Your task to perform on an android device: View the shopping cart on costco.com. Search for apple airpods pro on costco.com, select the first entry, and add it to the cart. Image 0: 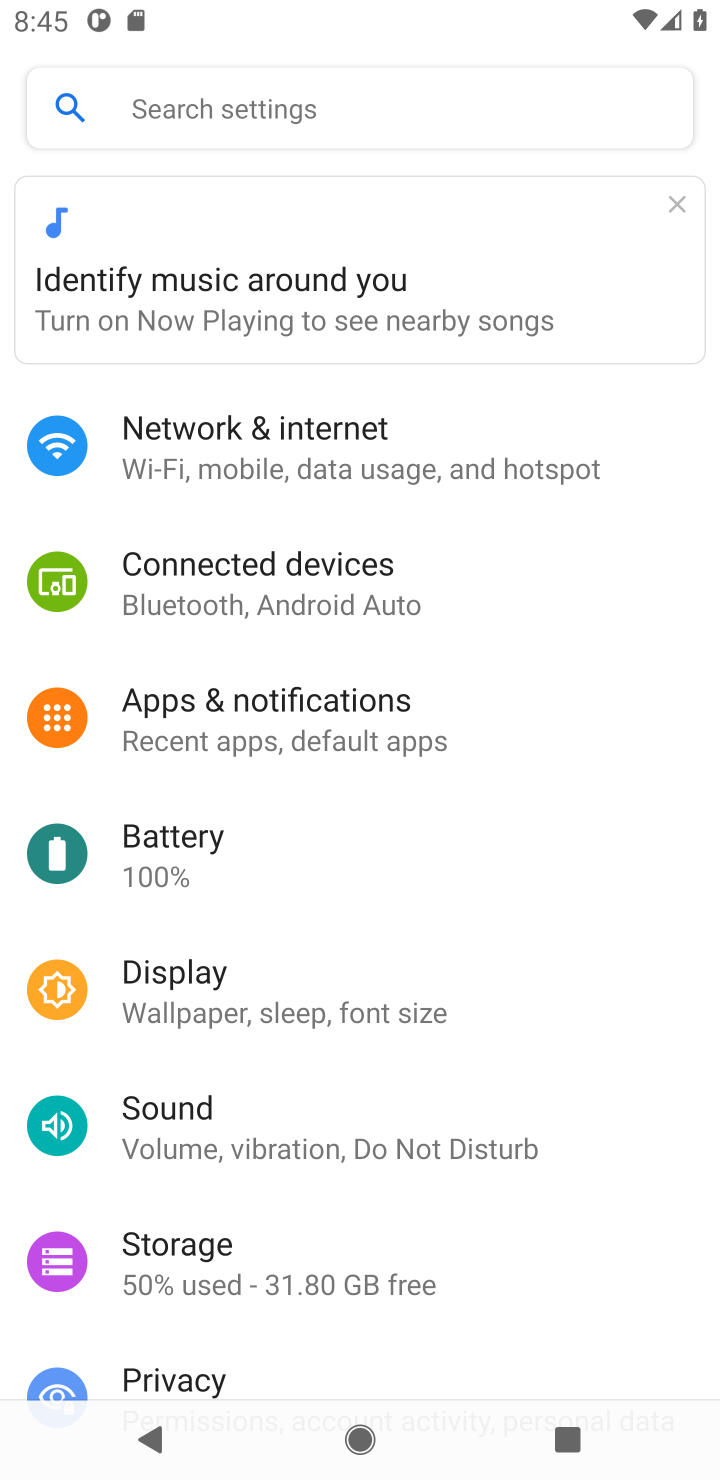
Step 0: press home button
Your task to perform on an android device: View the shopping cart on costco.com. Search for apple airpods pro on costco.com, select the first entry, and add it to the cart. Image 1: 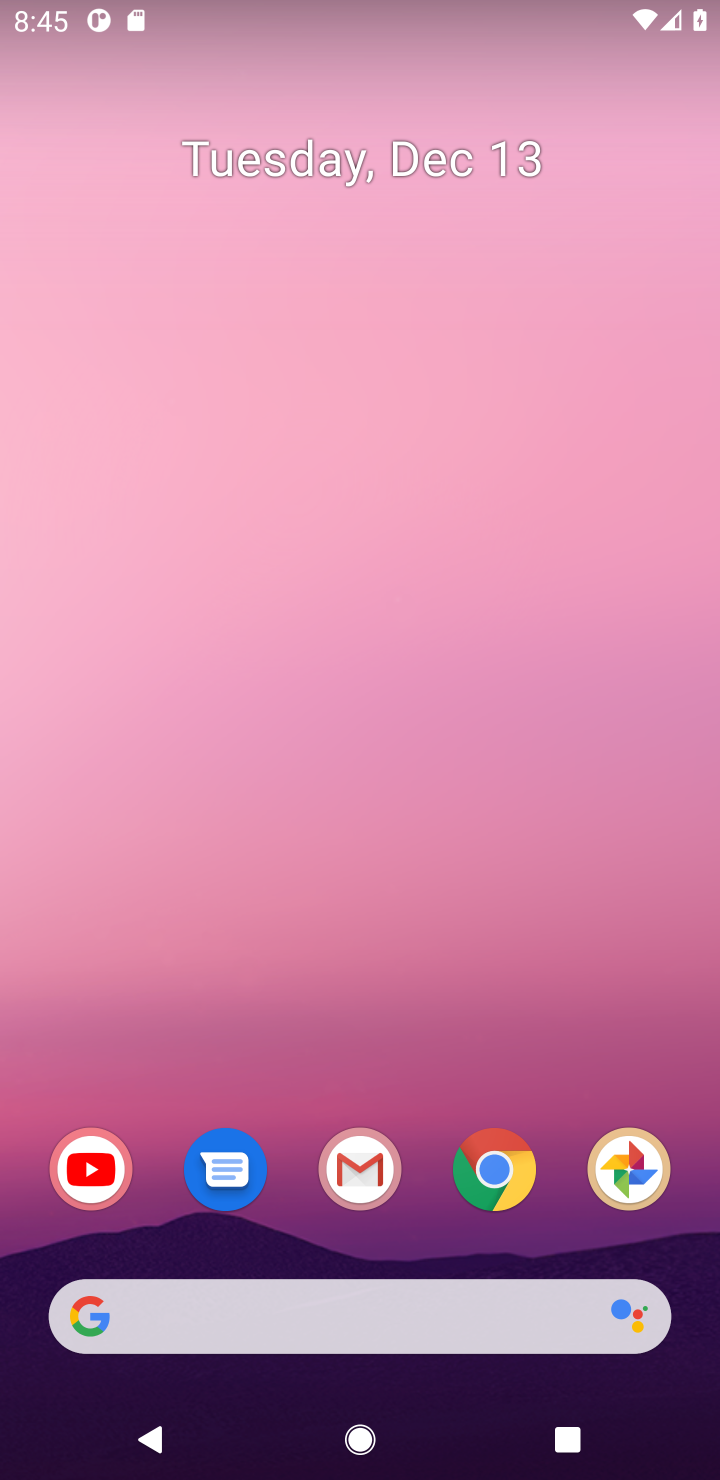
Step 1: click (490, 1138)
Your task to perform on an android device: View the shopping cart on costco.com. Search for apple airpods pro on costco.com, select the first entry, and add it to the cart. Image 2: 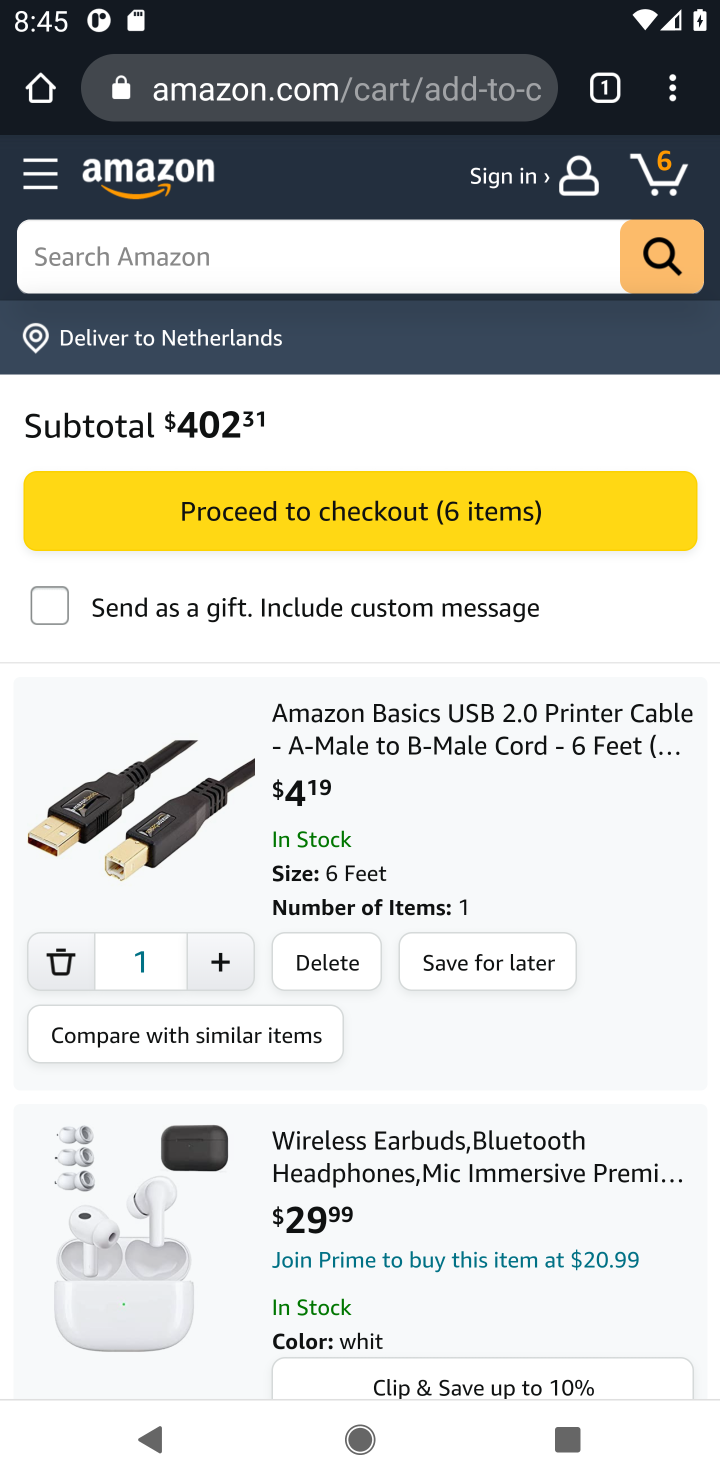
Step 2: click (249, 283)
Your task to perform on an android device: View the shopping cart on costco.com. Search for apple airpods pro on costco.com, select the first entry, and add it to the cart. Image 3: 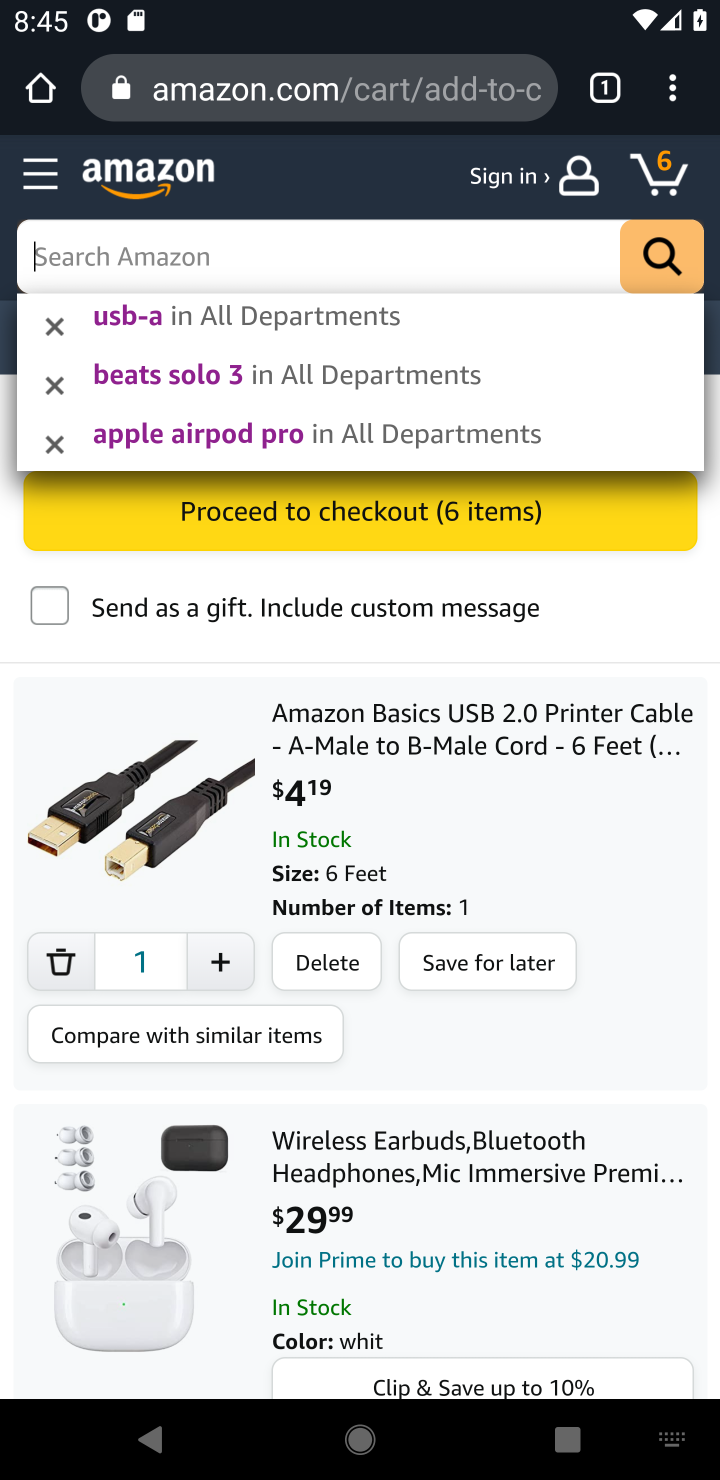
Step 3: click (195, 116)
Your task to perform on an android device: View the shopping cart on costco.com. Search for apple airpods pro on costco.com, select the first entry, and add it to the cart. Image 4: 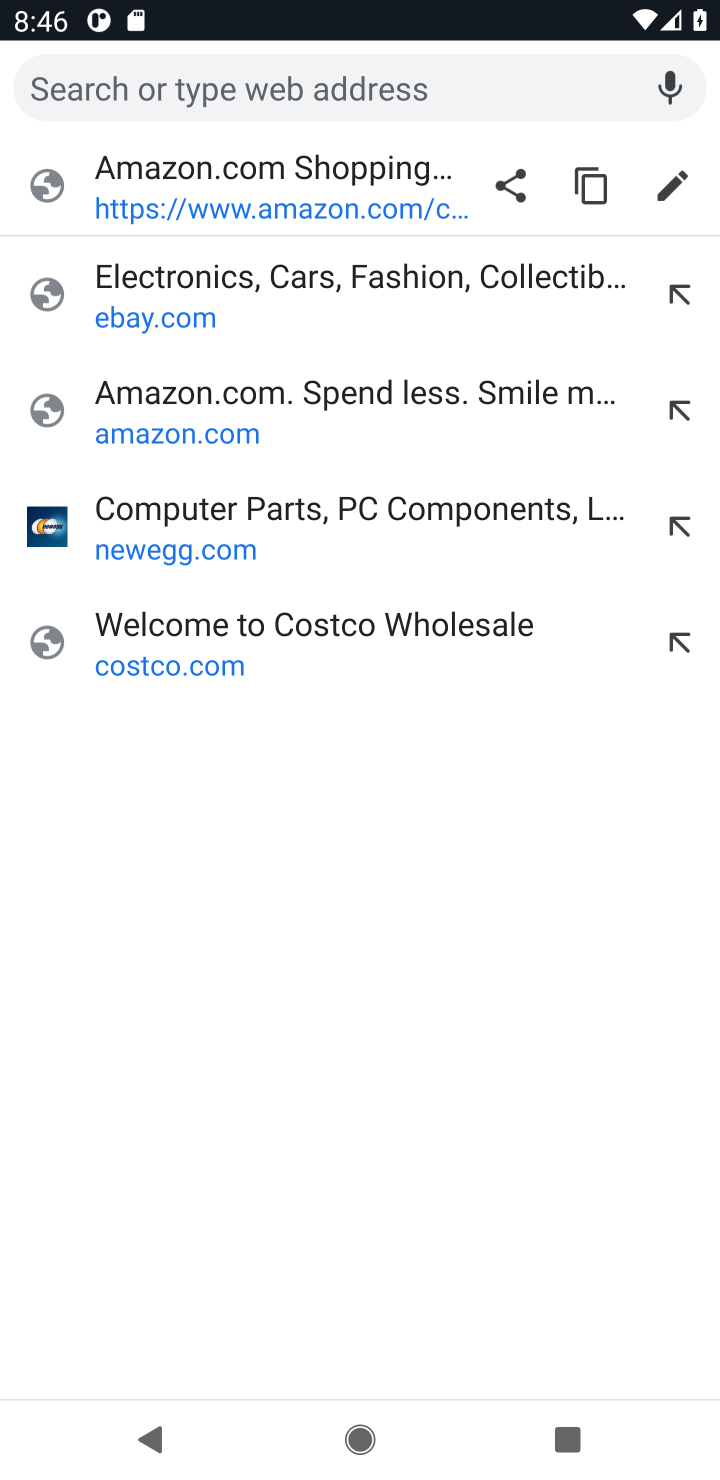
Step 4: type "costco"
Your task to perform on an android device: View the shopping cart on costco.com. Search for apple airpods pro on costco.com, select the first entry, and add it to the cart. Image 5: 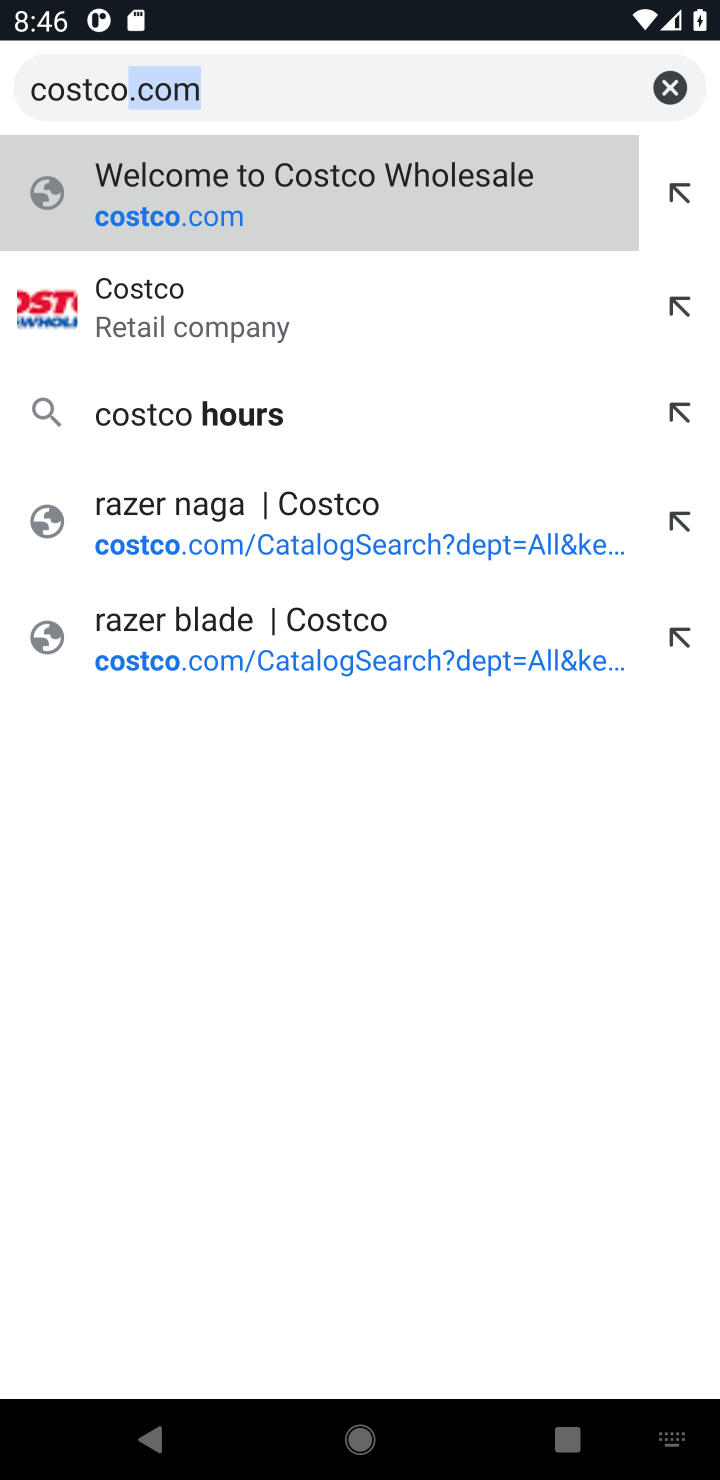
Step 5: click (193, 321)
Your task to perform on an android device: View the shopping cart on costco.com. Search for apple airpods pro on costco.com, select the first entry, and add it to the cart. Image 6: 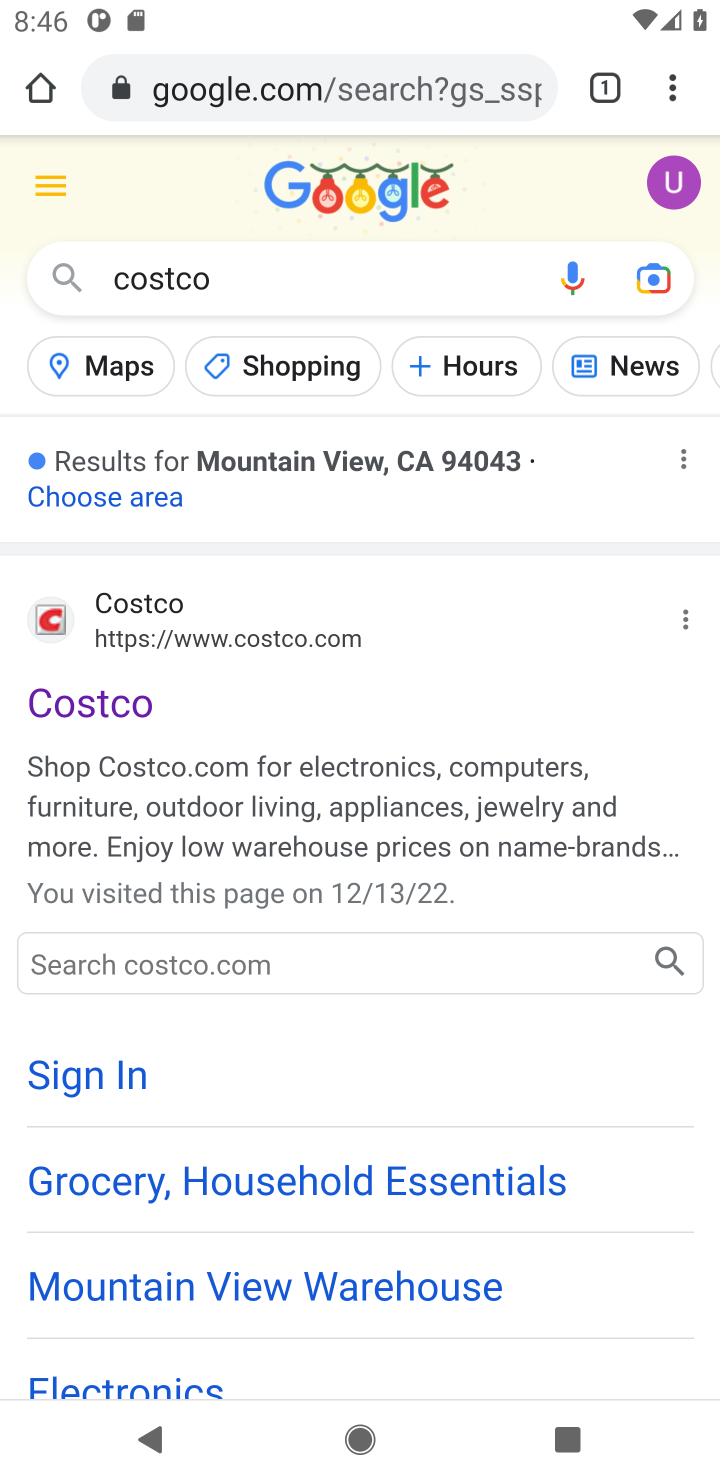
Step 6: click (106, 674)
Your task to perform on an android device: View the shopping cart on costco.com. Search for apple airpods pro on costco.com, select the first entry, and add it to the cart. Image 7: 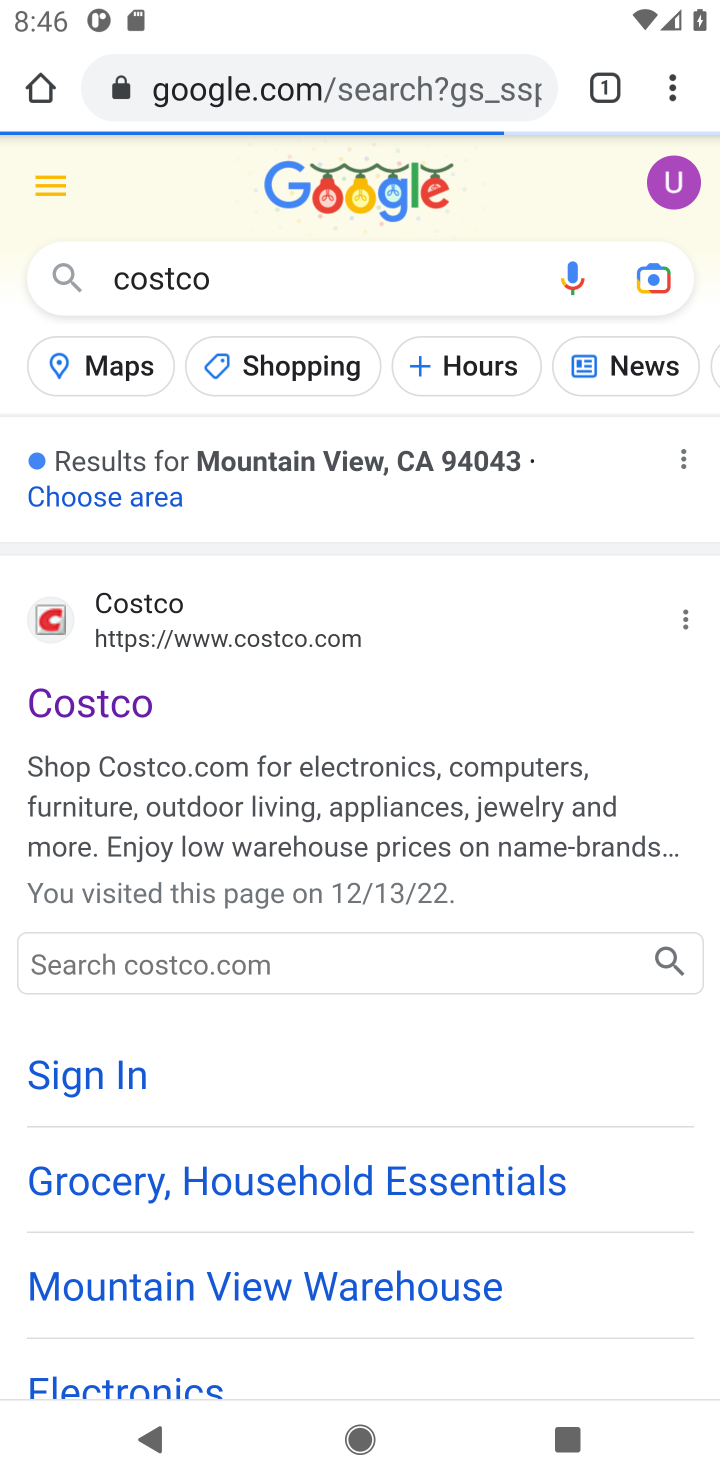
Step 7: click (88, 720)
Your task to perform on an android device: View the shopping cart on costco.com. Search for apple airpods pro on costco.com, select the first entry, and add it to the cart. Image 8: 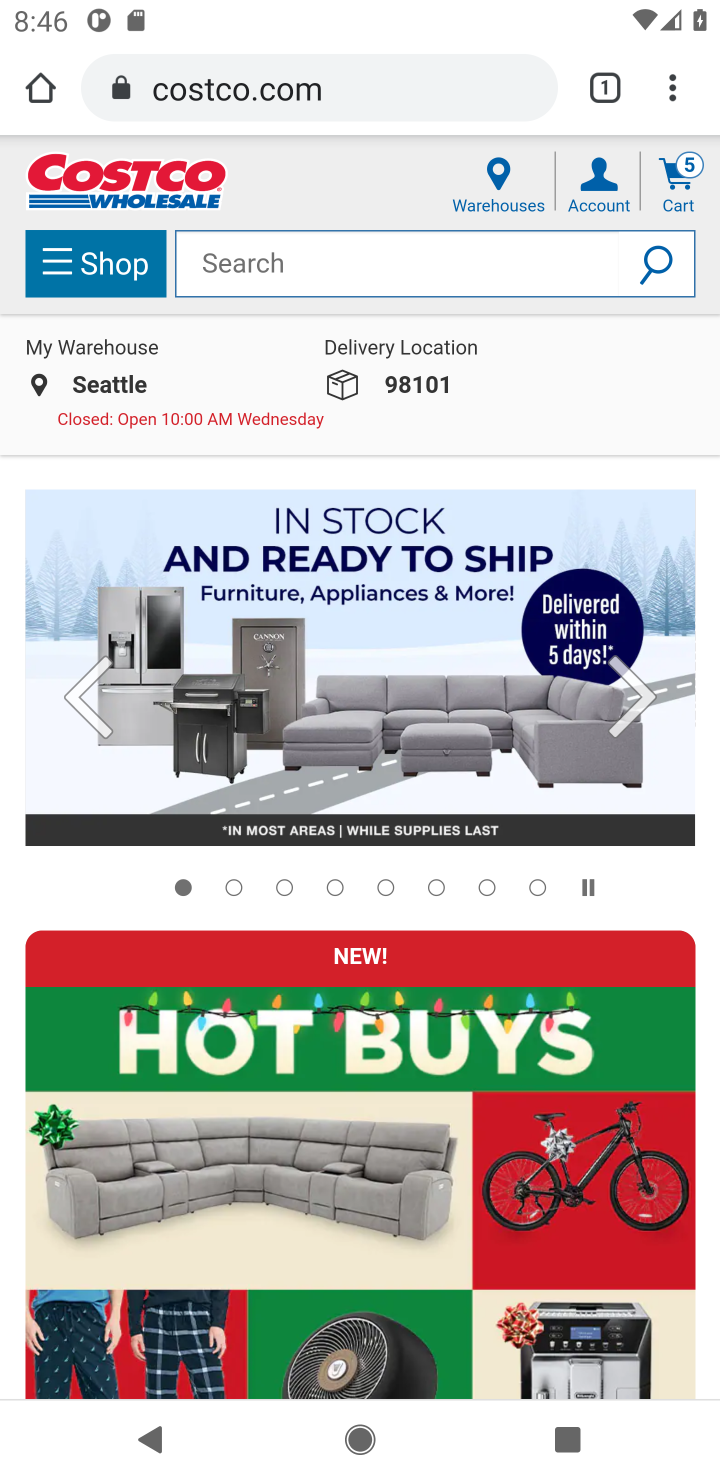
Step 8: click (234, 246)
Your task to perform on an android device: View the shopping cart on costco.com. Search for apple airpods pro on costco.com, select the first entry, and add it to the cart. Image 9: 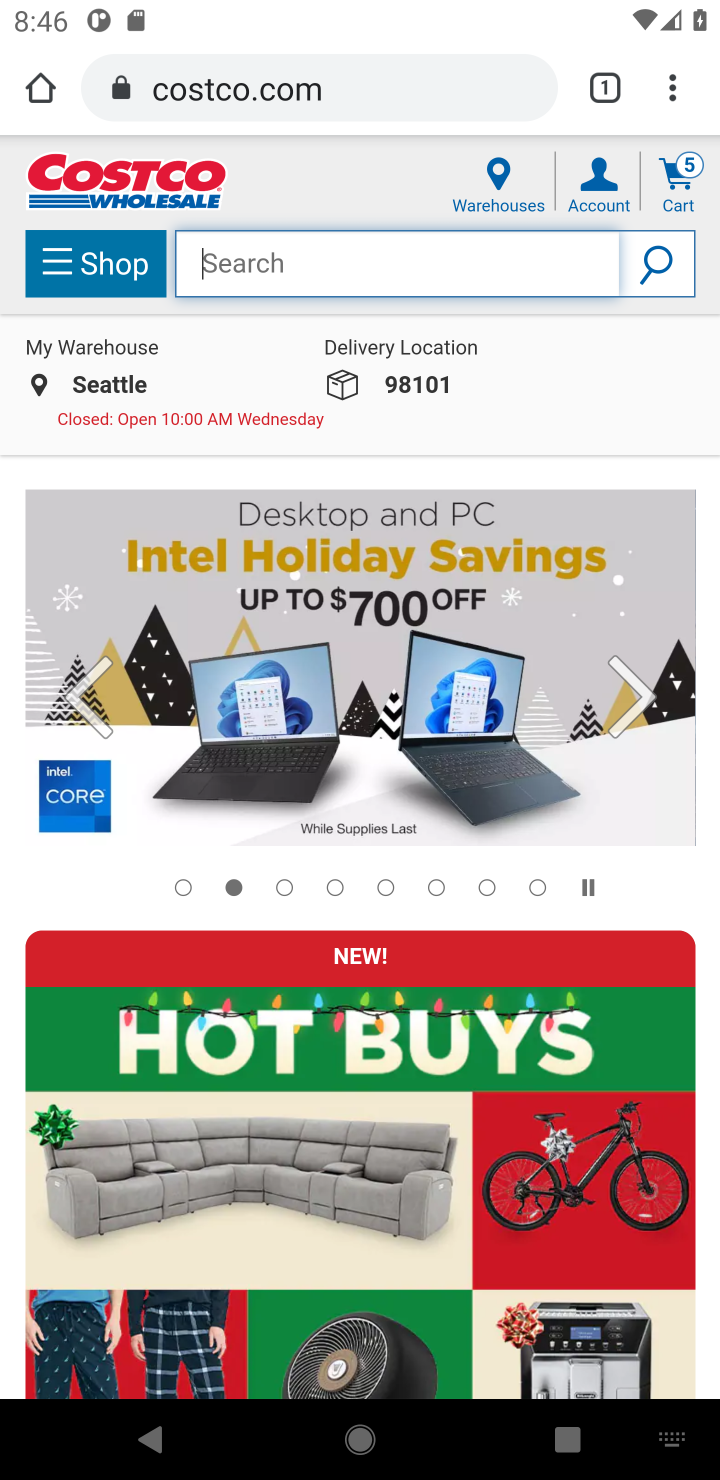
Step 9: type "apple airpod"
Your task to perform on an android device: View the shopping cart on costco.com. Search for apple airpods pro on costco.com, select the first entry, and add it to the cart. Image 10: 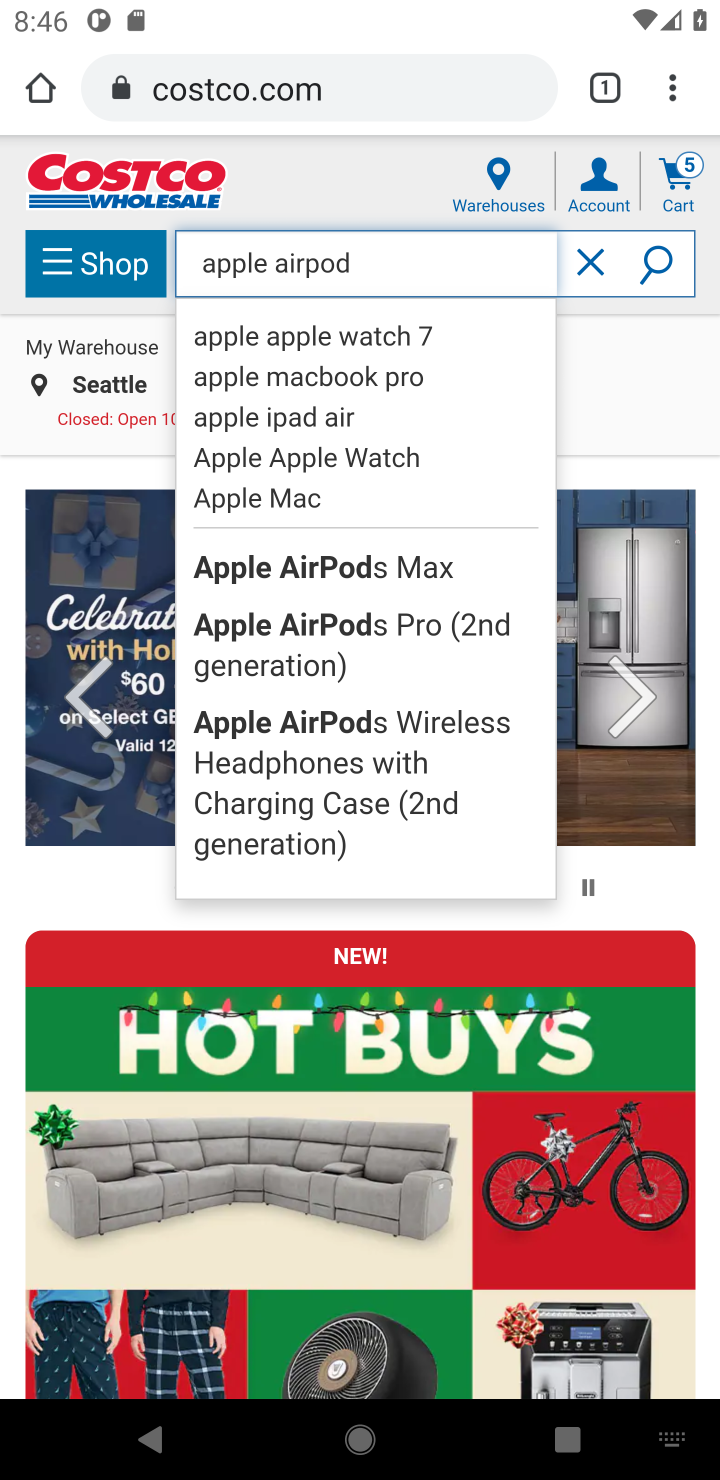
Step 10: click (653, 273)
Your task to perform on an android device: View the shopping cart on costco.com. Search for apple airpods pro on costco.com, select the first entry, and add it to the cart. Image 11: 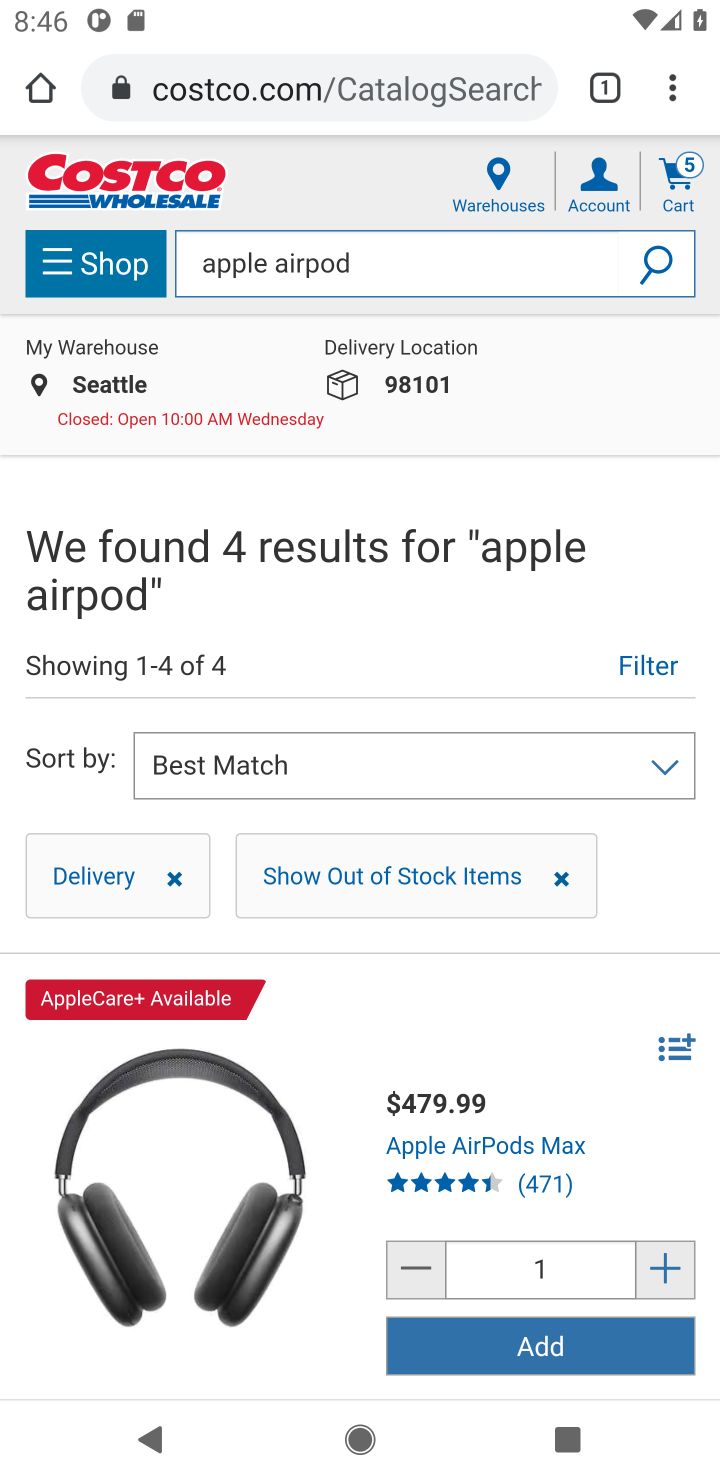
Step 11: click (512, 1367)
Your task to perform on an android device: View the shopping cart on costco.com. Search for apple airpods pro on costco.com, select the first entry, and add it to the cart. Image 12: 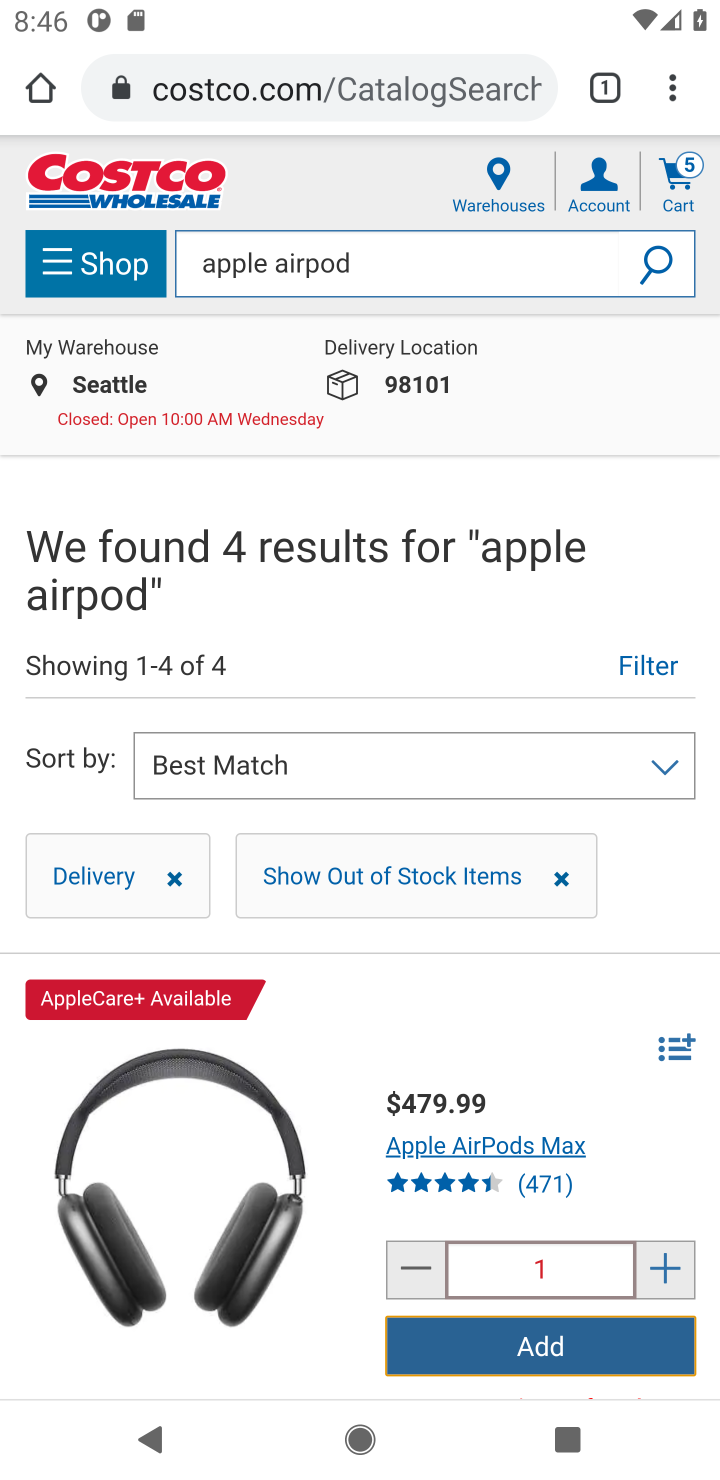
Step 12: task complete